Your task to perform on an android device: remove spam from my inbox in the gmail app Image 0: 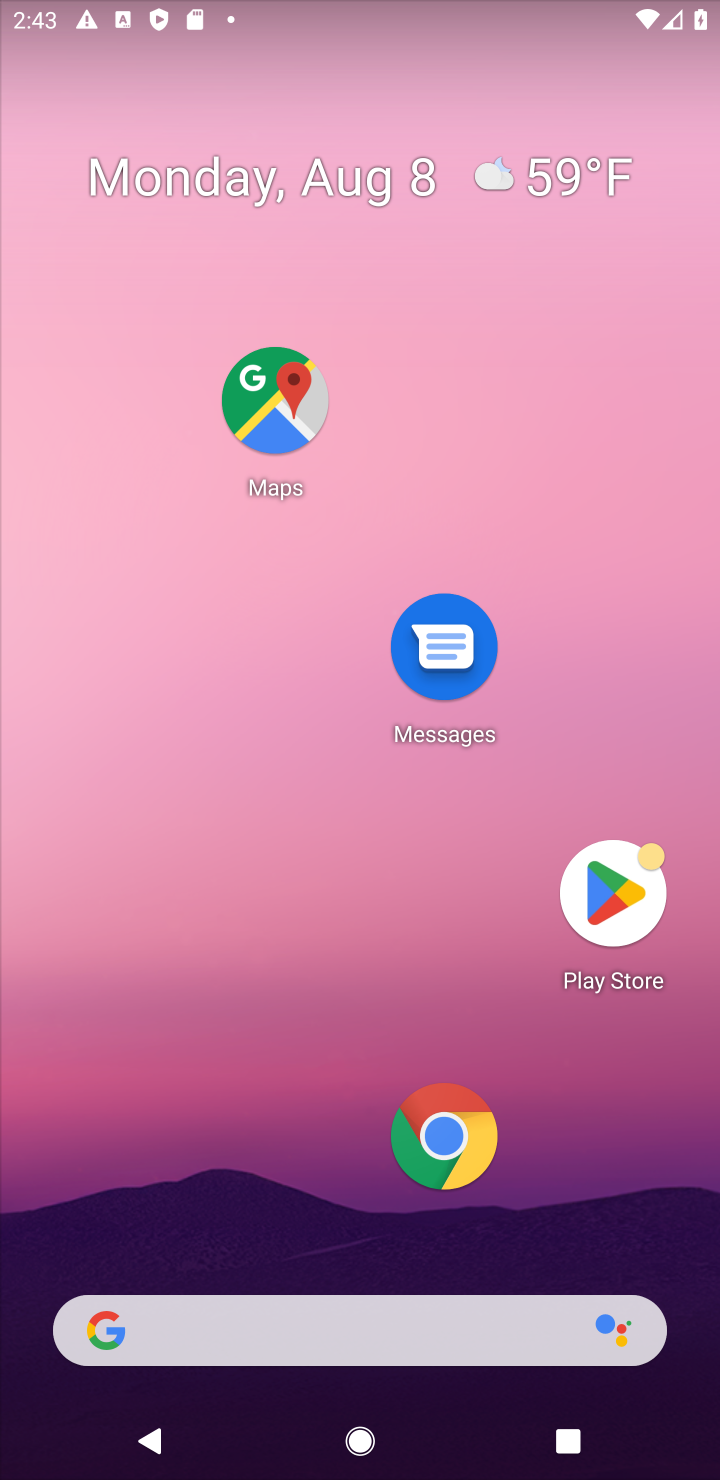
Step 0: drag from (43, 1417) to (285, 69)
Your task to perform on an android device: remove spam from my inbox in the gmail app Image 1: 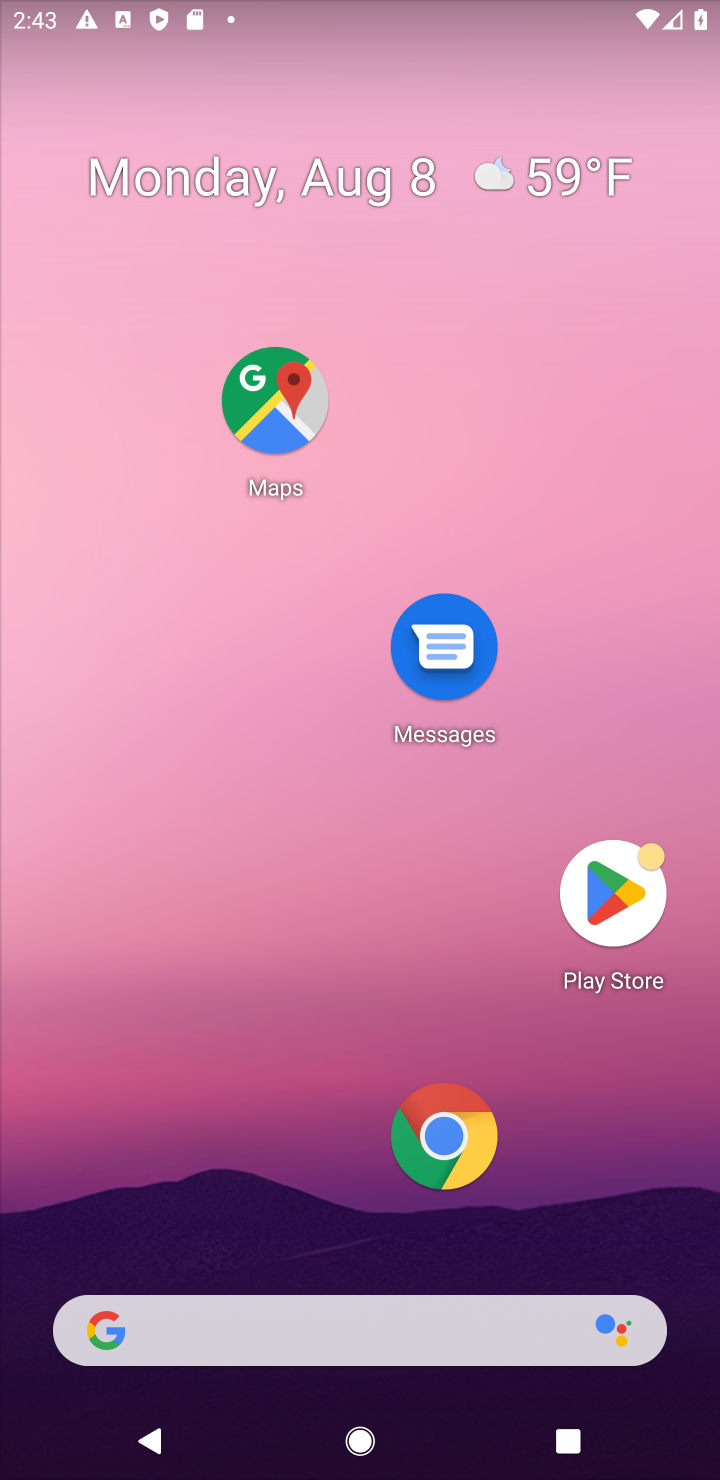
Step 1: task complete